Your task to perform on an android device: Open calendar and show me the second week of next month Image 0: 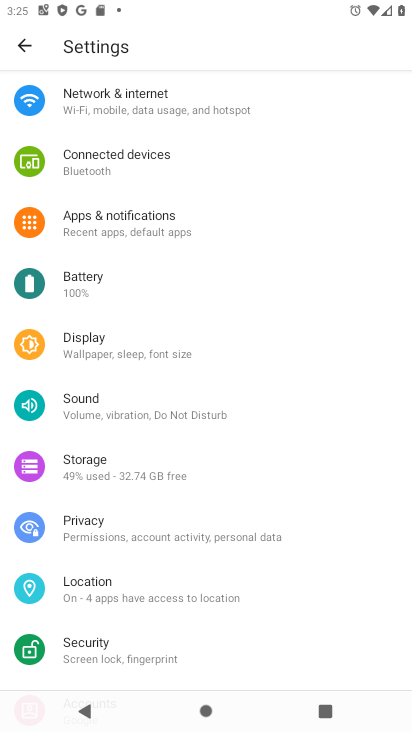
Step 0: press home button
Your task to perform on an android device: Open calendar and show me the second week of next month Image 1: 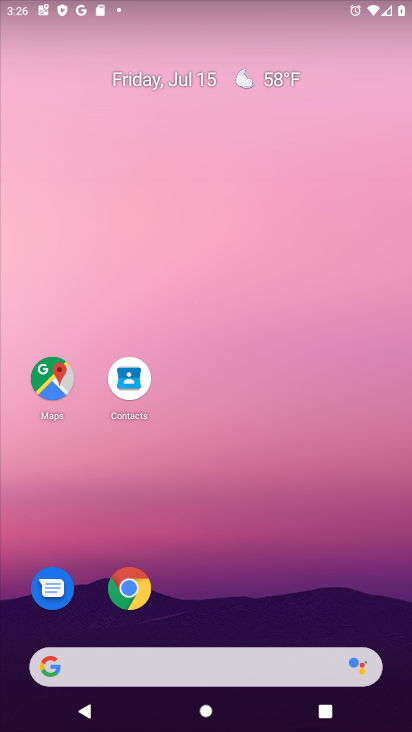
Step 1: drag from (268, 581) to (306, 5)
Your task to perform on an android device: Open calendar and show me the second week of next month Image 2: 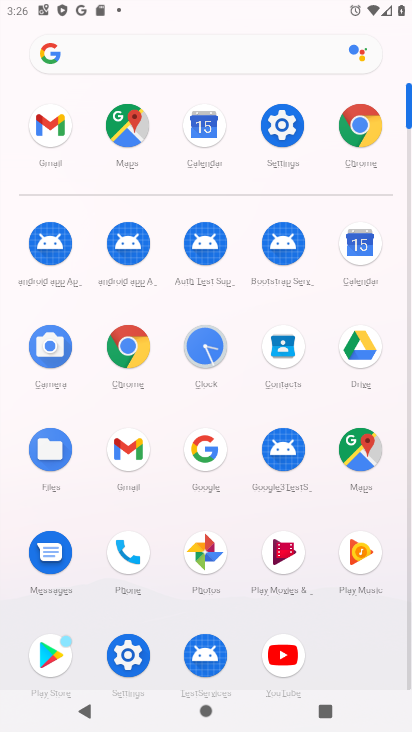
Step 2: click (213, 136)
Your task to perform on an android device: Open calendar and show me the second week of next month Image 3: 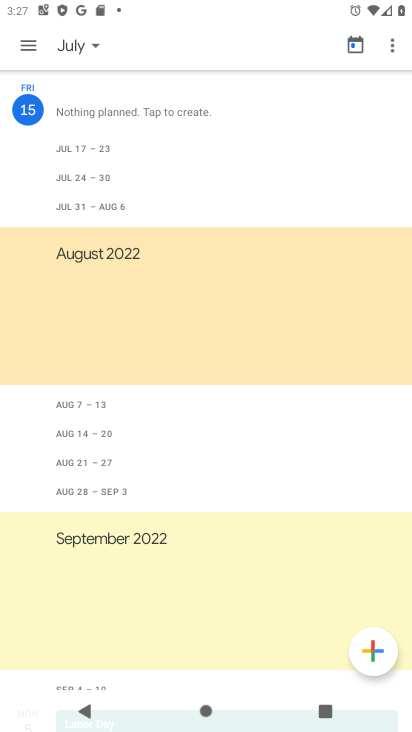
Step 3: task complete